Your task to perform on an android device: Open Google Chrome Image 0: 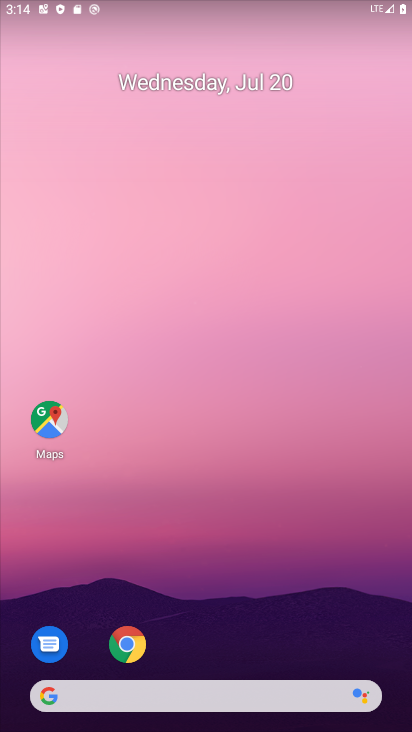
Step 0: click (47, 414)
Your task to perform on an android device: Open Google Chrome Image 1: 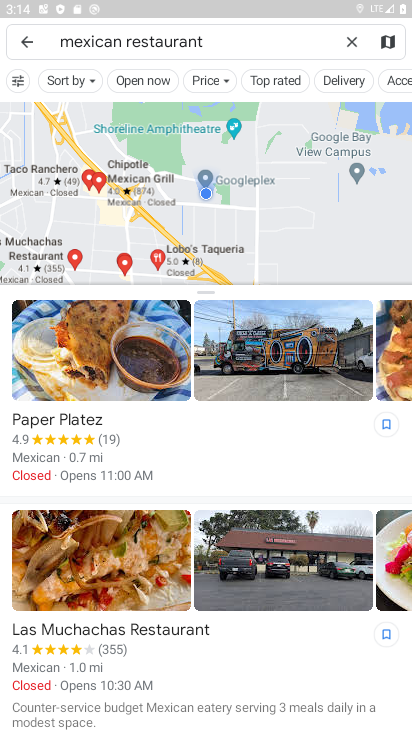
Step 1: click (17, 34)
Your task to perform on an android device: Open Google Chrome Image 2: 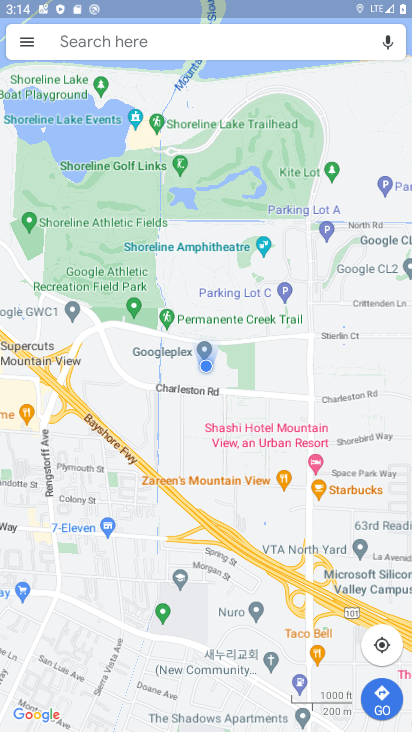
Step 2: click (88, 38)
Your task to perform on an android device: Open Google Chrome Image 3: 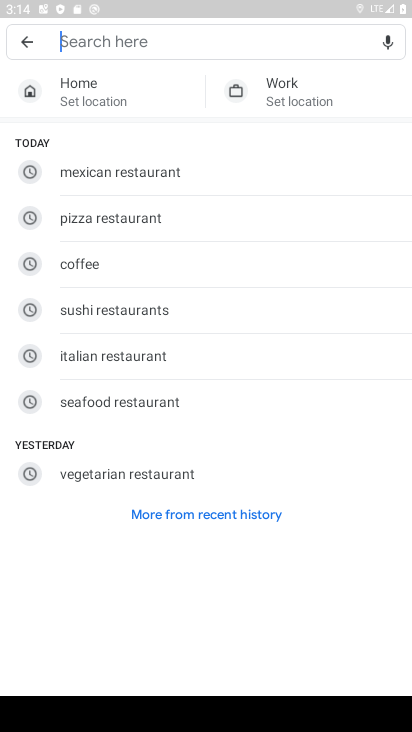
Step 3: task complete